Your task to perform on an android device: Search for sony triple a on newegg, select the first entry, and add it to the cart. Image 0: 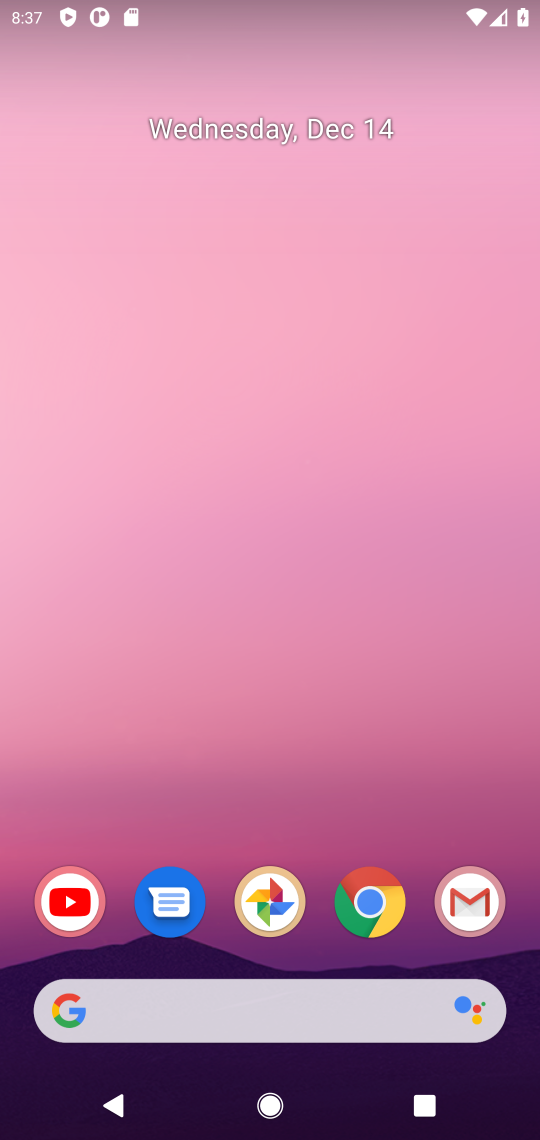
Step 0: press home button
Your task to perform on an android device: Search for sony triple a on newegg, select the first entry, and add it to the cart. Image 1: 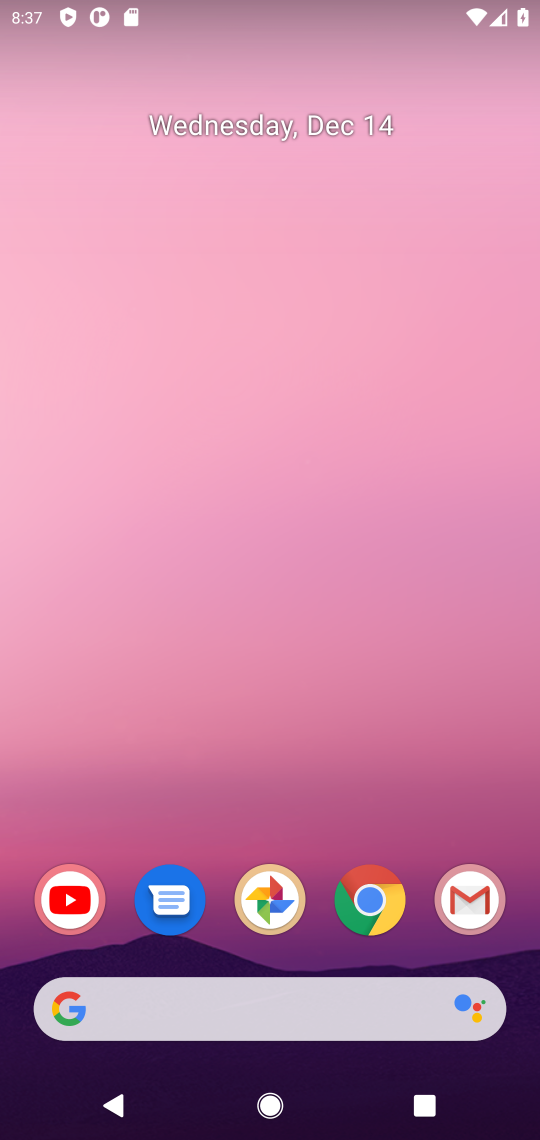
Step 1: click (244, 1012)
Your task to perform on an android device: Search for sony triple a on newegg, select the first entry, and add it to the cart. Image 2: 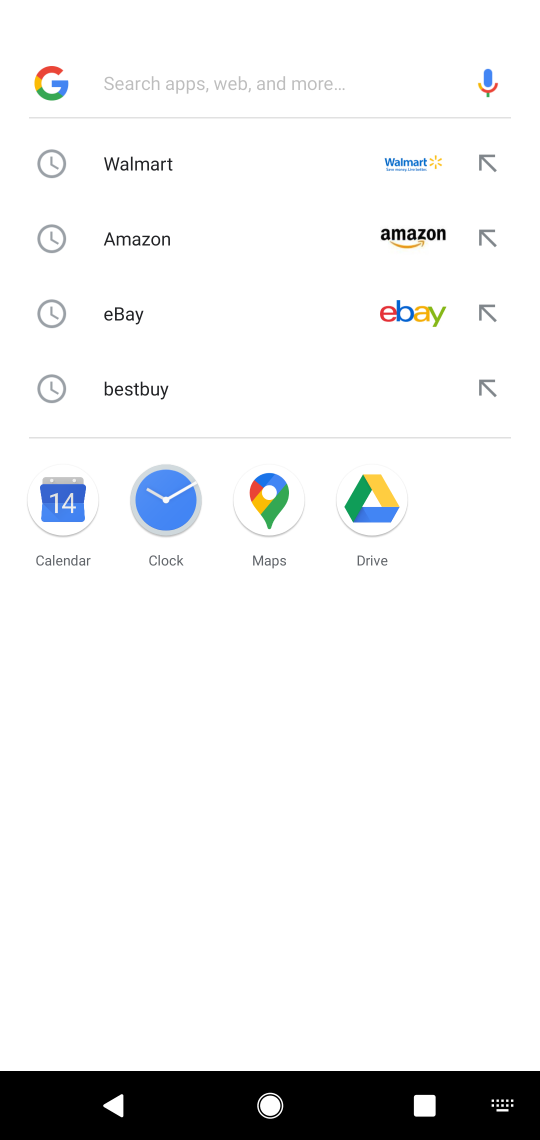
Step 2: type "newegg"
Your task to perform on an android device: Search for sony triple a on newegg, select the first entry, and add it to the cart. Image 3: 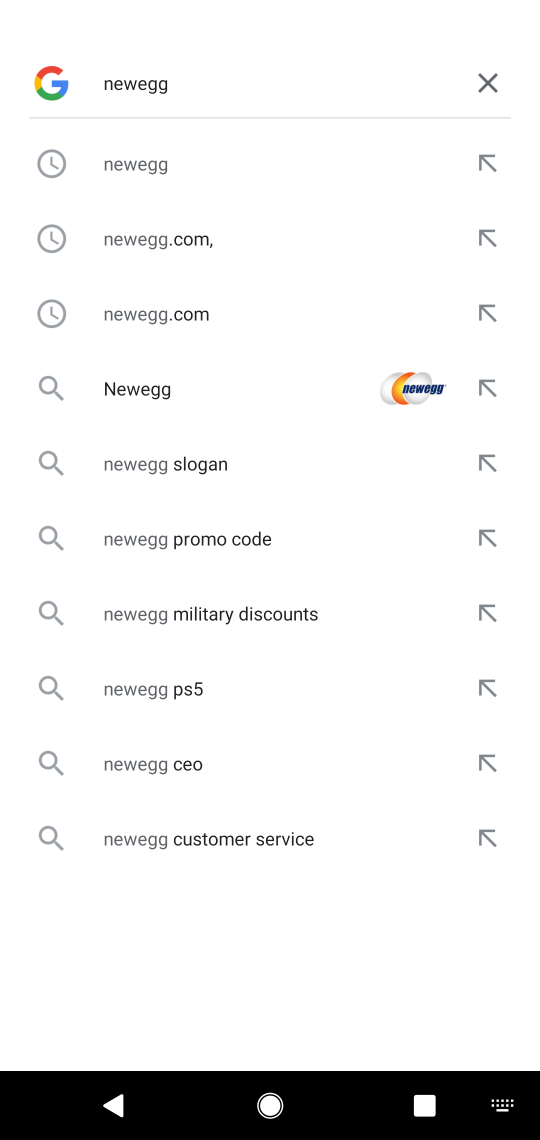
Step 3: type ""
Your task to perform on an android device: Search for sony triple a on newegg, select the first entry, and add it to the cart. Image 4: 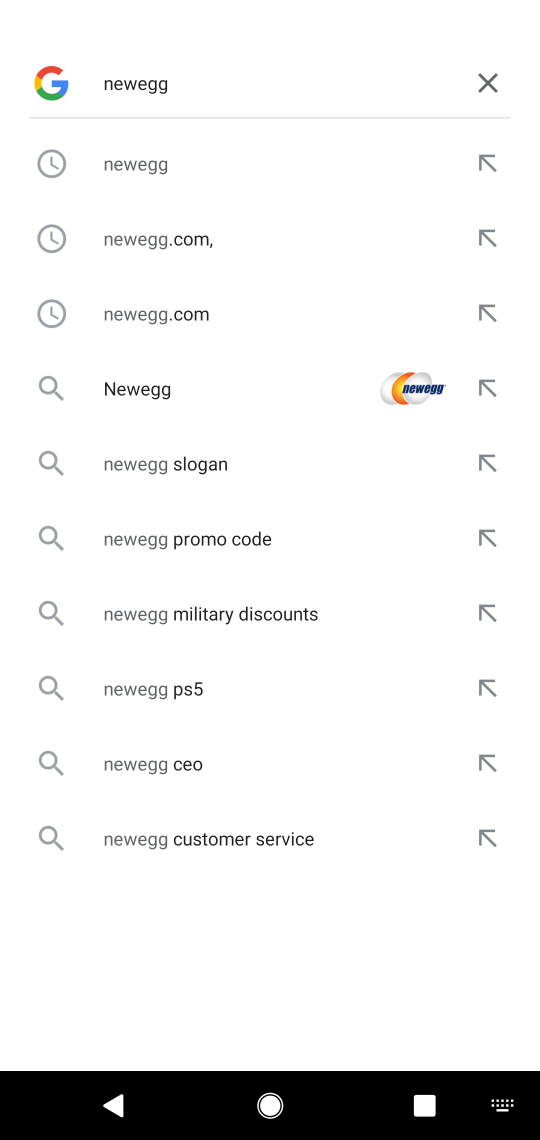
Step 4: click (198, 402)
Your task to perform on an android device: Search for sony triple a on newegg, select the first entry, and add it to the cart. Image 5: 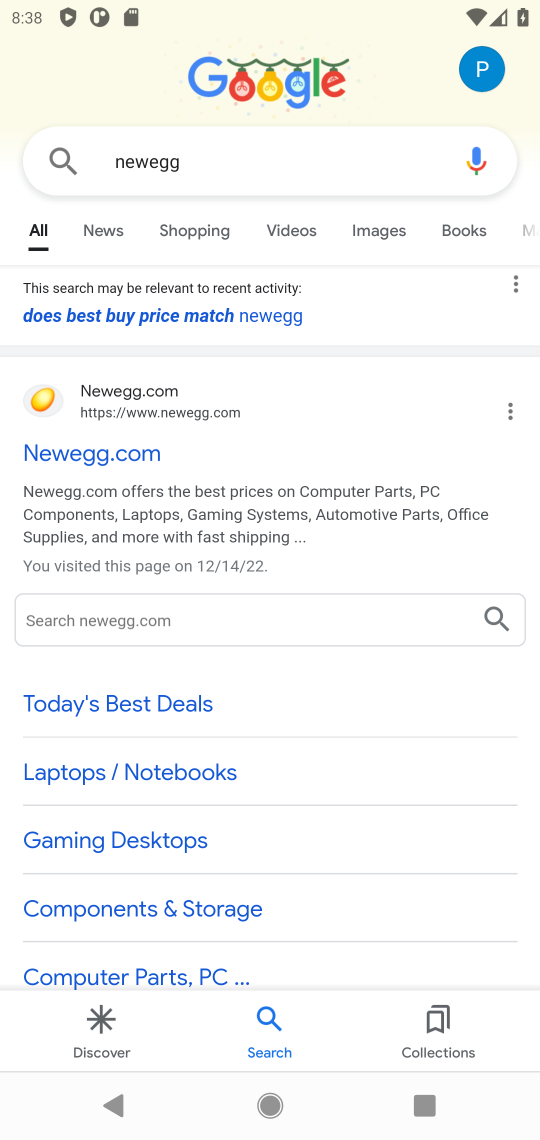
Step 5: click (115, 464)
Your task to perform on an android device: Search for sony triple a on newegg, select the first entry, and add it to the cart. Image 6: 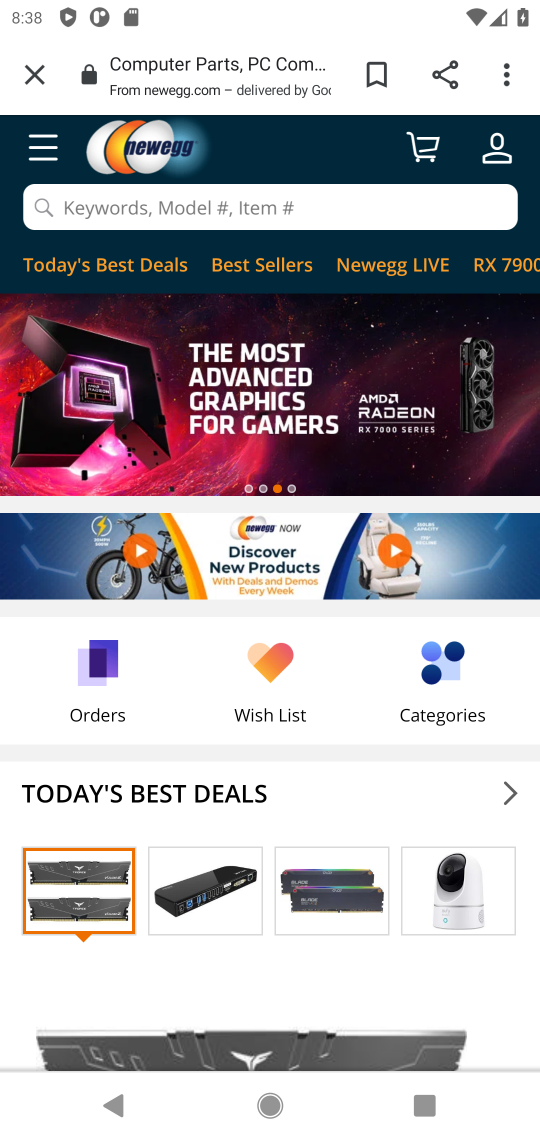
Step 6: click (236, 215)
Your task to perform on an android device: Search for sony triple a on newegg, select the first entry, and add it to the cart. Image 7: 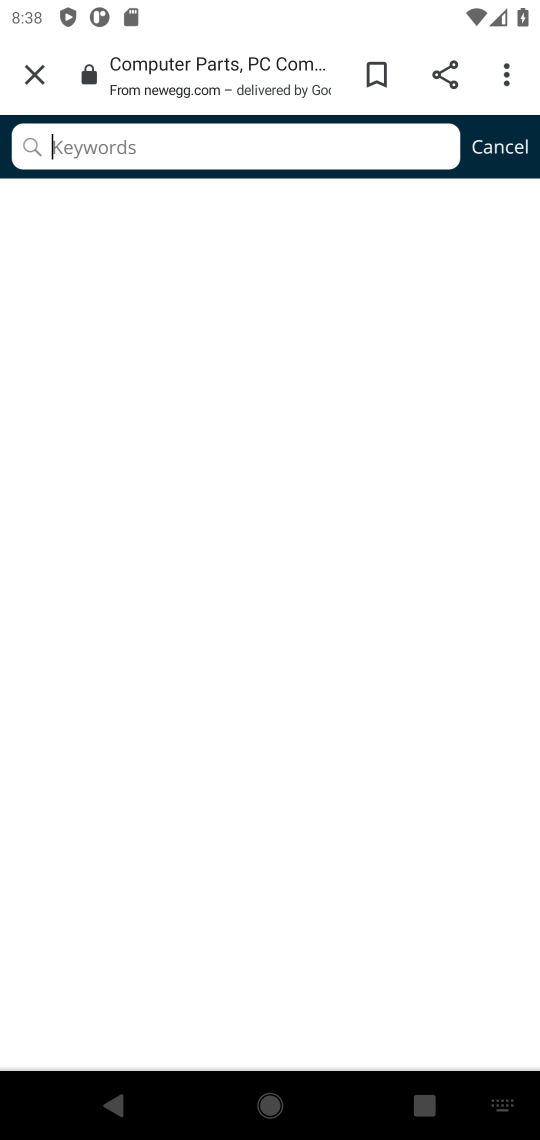
Step 7: type "sony triple a "
Your task to perform on an android device: Search for sony triple a on newegg, select the first entry, and add it to the cart. Image 8: 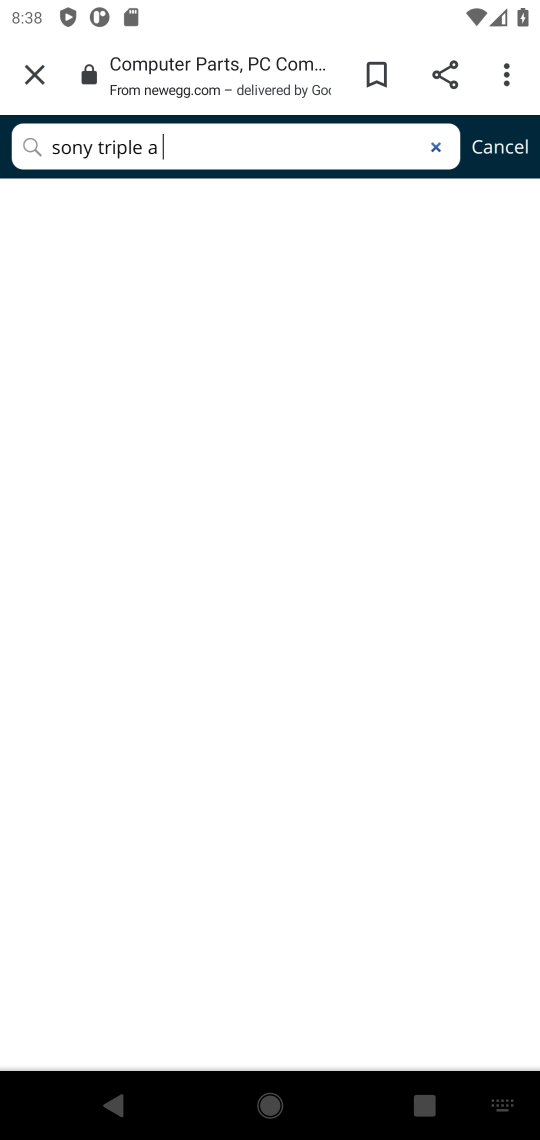
Step 8: type ""
Your task to perform on an android device: Search for sony triple a on newegg, select the first entry, and add it to the cart. Image 9: 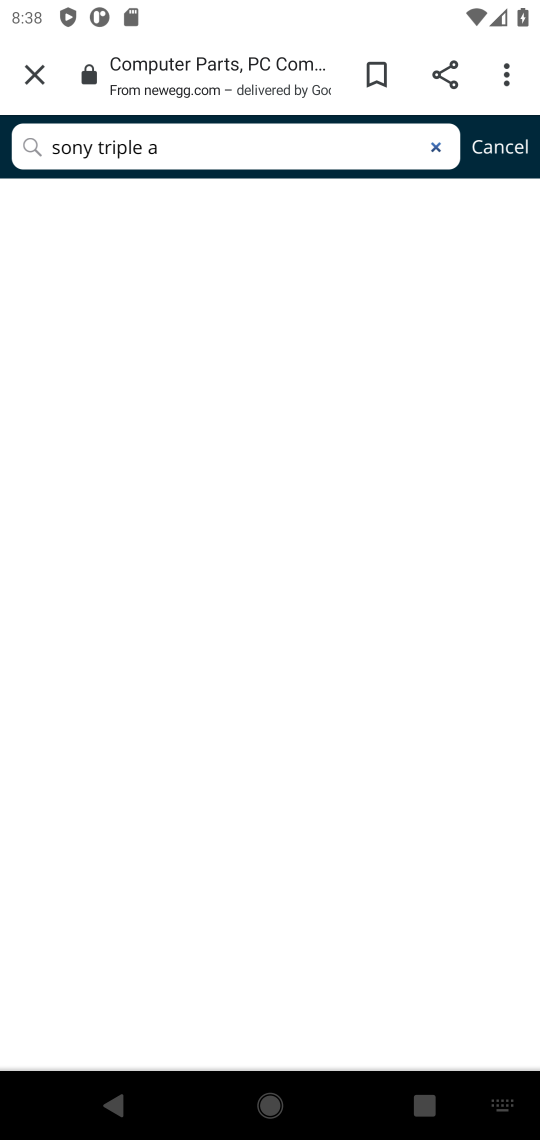
Step 9: click (31, 152)
Your task to perform on an android device: Search for sony triple a on newegg, select the first entry, and add it to the cart. Image 10: 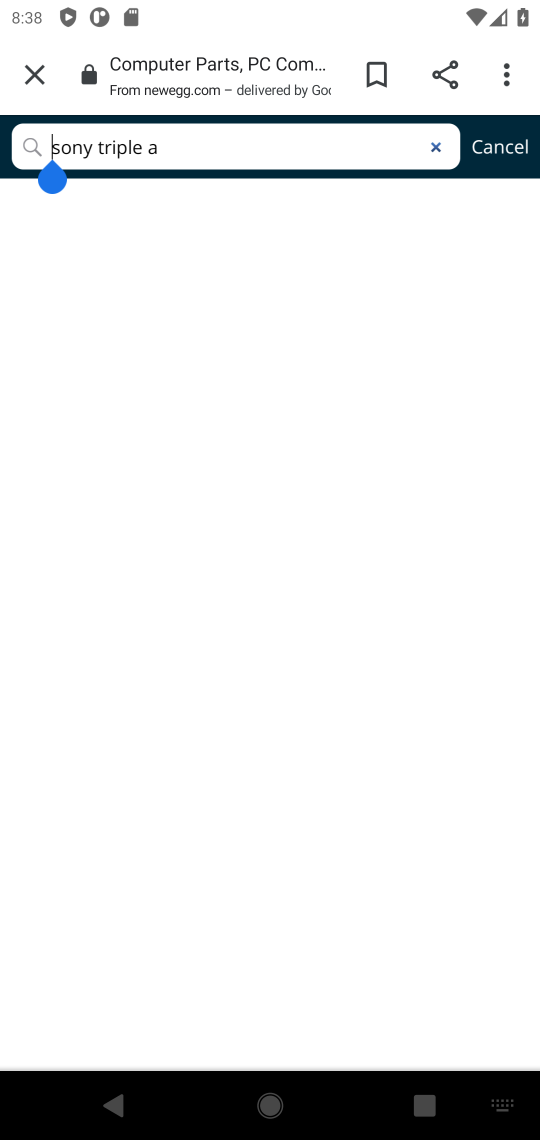
Step 10: click (29, 145)
Your task to perform on an android device: Search for sony triple a on newegg, select the first entry, and add it to the cart. Image 11: 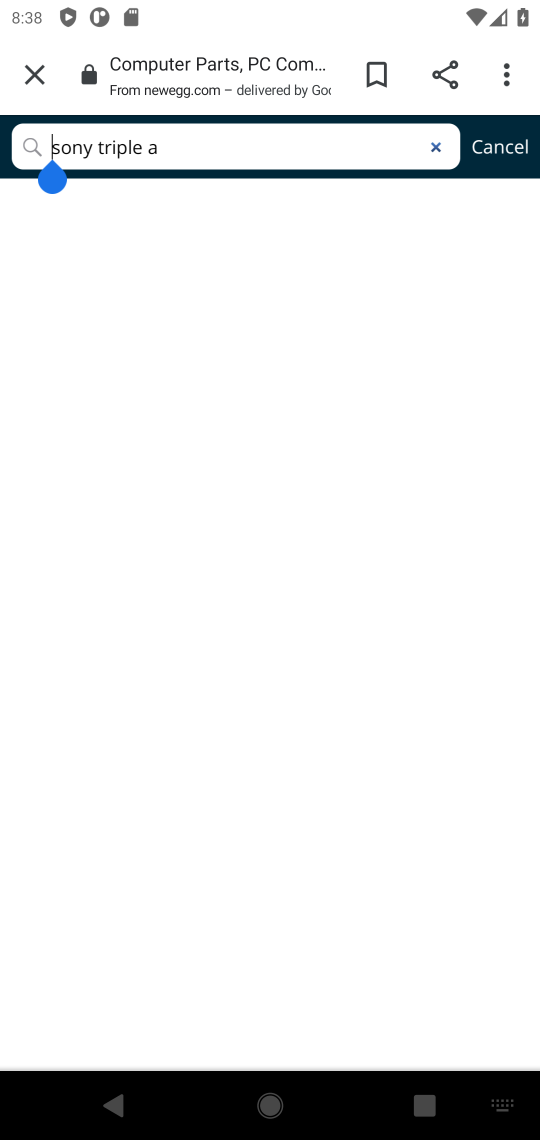
Step 11: task complete